Your task to perform on an android device: Open calendar and show me the third week of next month Image 0: 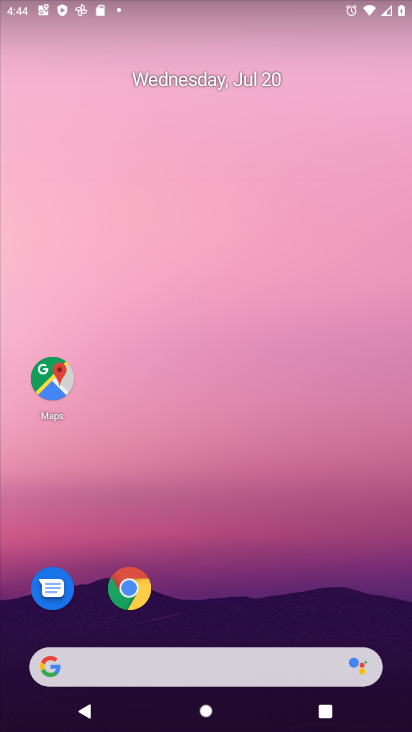
Step 0: drag from (259, 576) to (237, 0)
Your task to perform on an android device: Open calendar and show me the third week of next month Image 1: 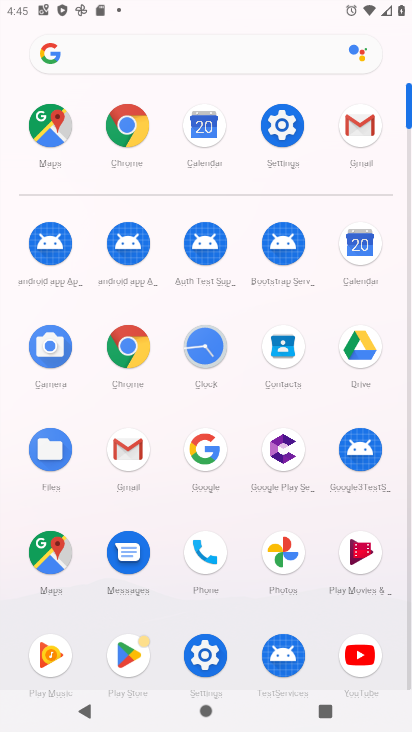
Step 1: click (365, 245)
Your task to perform on an android device: Open calendar and show me the third week of next month Image 2: 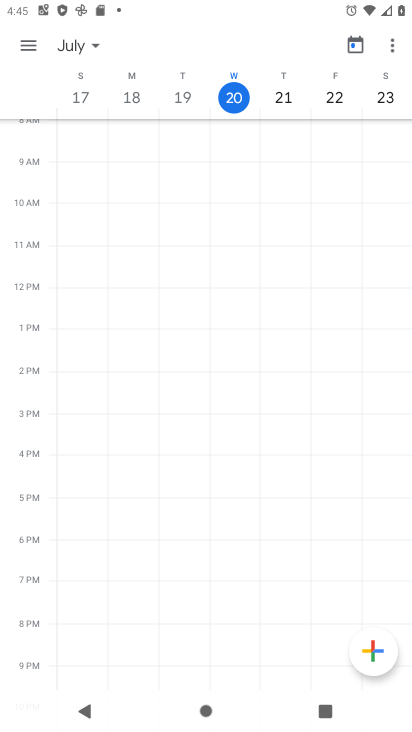
Step 2: click (66, 50)
Your task to perform on an android device: Open calendar and show me the third week of next month Image 3: 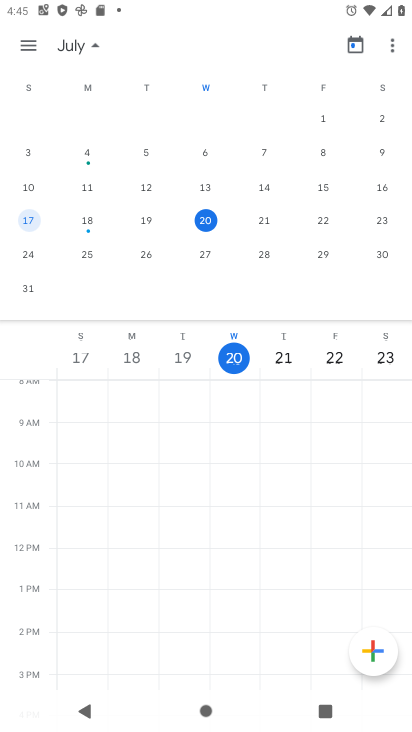
Step 3: drag from (376, 236) to (10, 199)
Your task to perform on an android device: Open calendar and show me the third week of next month Image 4: 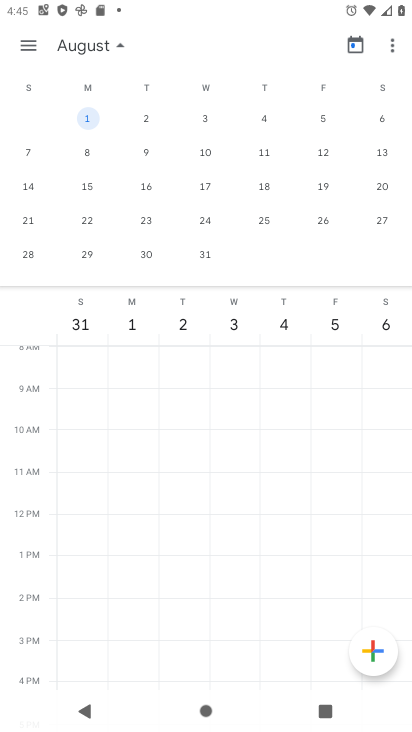
Step 4: click (155, 183)
Your task to perform on an android device: Open calendar and show me the third week of next month Image 5: 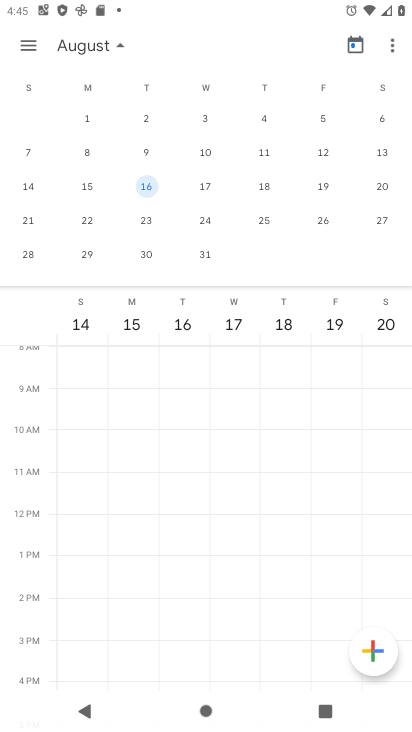
Step 5: task complete